Your task to perform on an android device: Open settings Image 0: 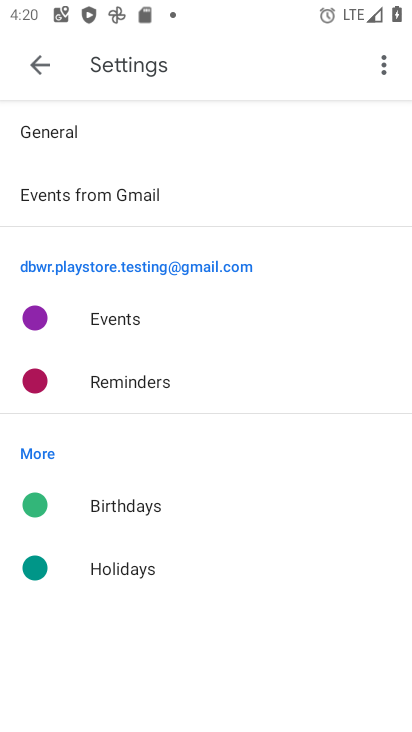
Step 0: press home button
Your task to perform on an android device: Open settings Image 1: 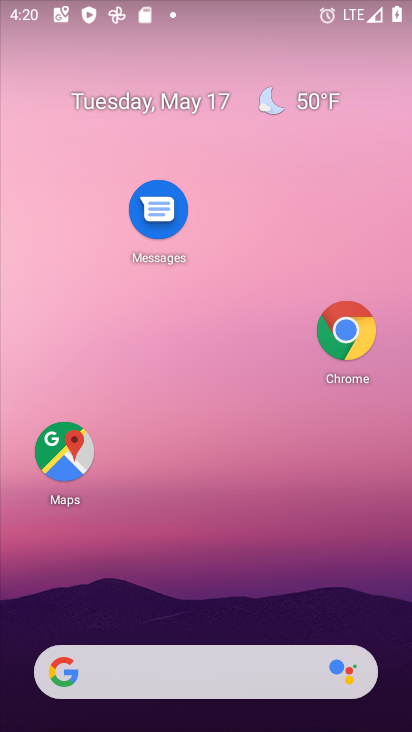
Step 1: drag from (207, 574) to (145, 27)
Your task to perform on an android device: Open settings Image 2: 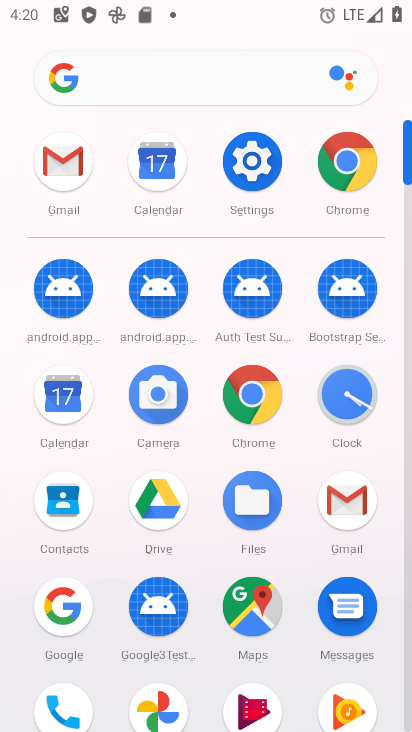
Step 2: click (249, 157)
Your task to perform on an android device: Open settings Image 3: 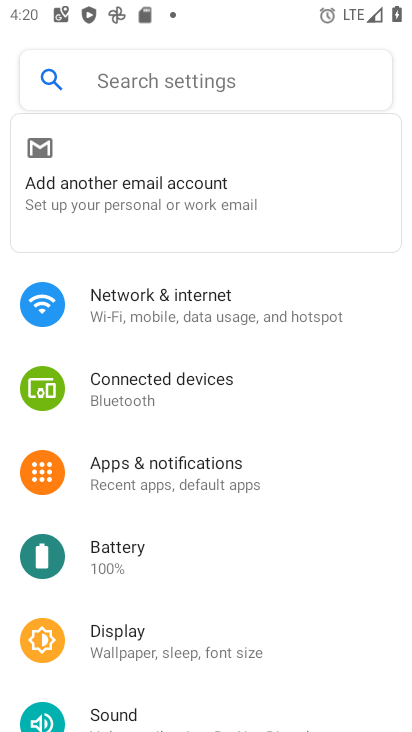
Step 3: task complete